Your task to perform on an android device: Go to Android settings Image 0: 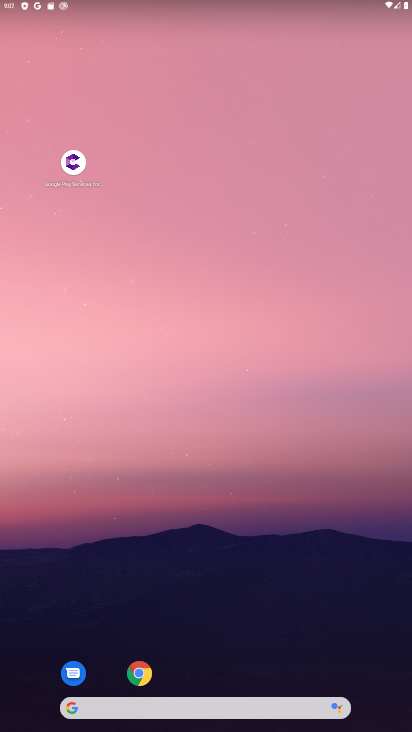
Step 0: drag from (201, 662) to (166, 143)
Your task to perform on an android device: Go to Android settings Image 1: 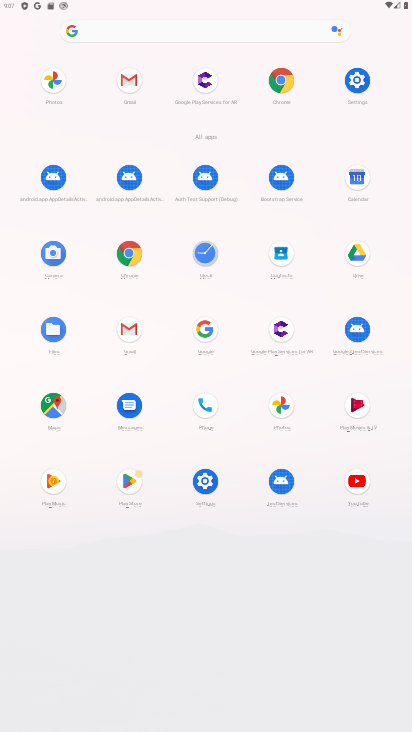
Step 1: click (359, 83)
Your task to perform on an android device: Go to Android settings Image 2: 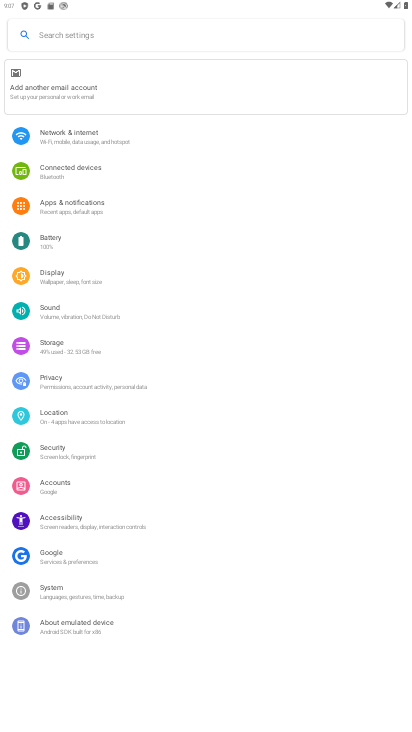
Step 2: task complete